Your task to perform on an android device: Check the news Image 0: 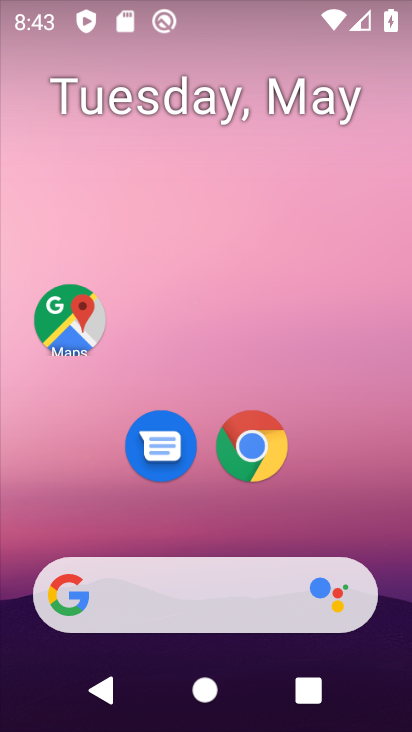
Step 0: drag from (13, 204) to (393, 245)
Your task to perform on an android device: Check the news Image 1: 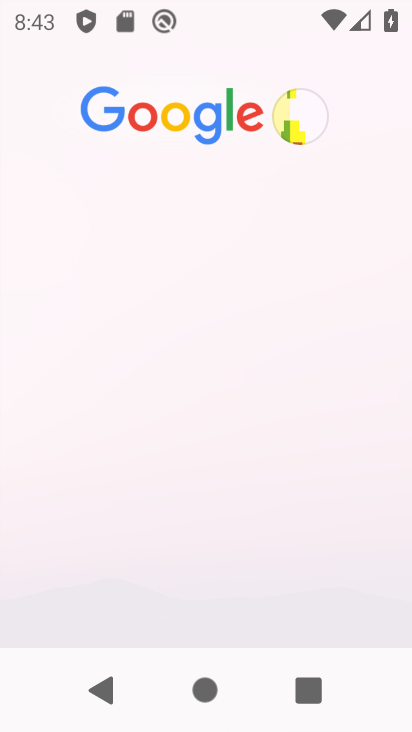
Step 1: task complete